Your task to perform on an android device: toggle show notifications on the lock screen Image 0: 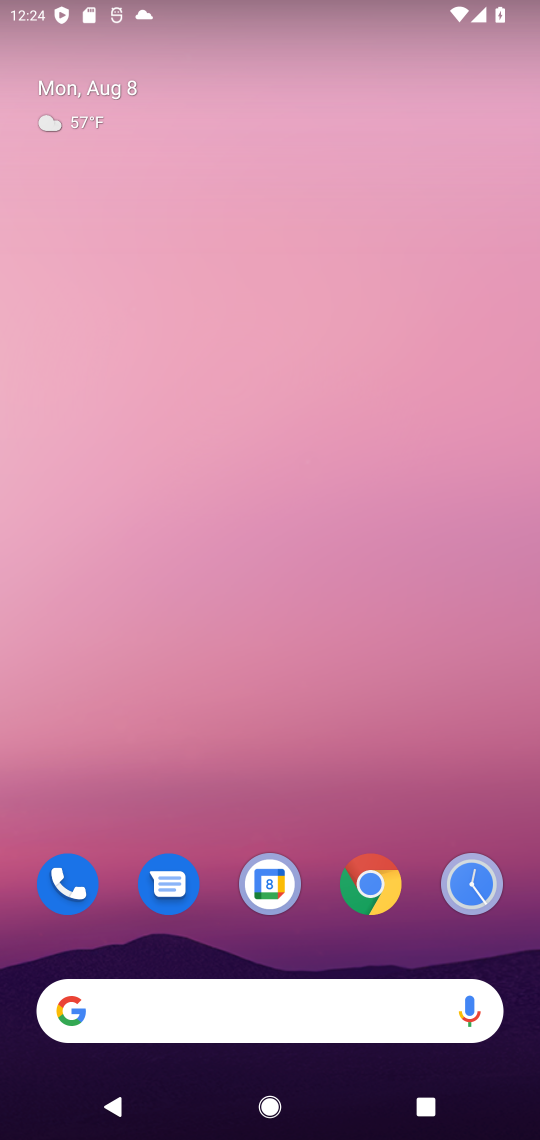
Step 0: drag from (87, 1041) to (356, 295)
Your task to perform on an android device: toggle show notifications on the lock screen Image 1: 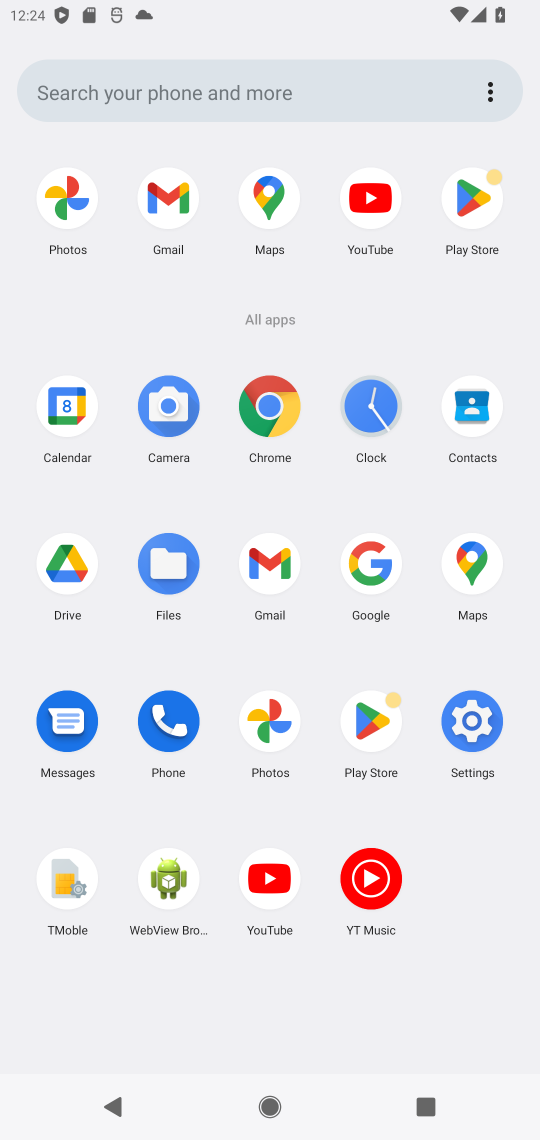
Step 1: click (468, 701)
Your task to perform on an android device: toggle show notifications on the lock screen Image 2: 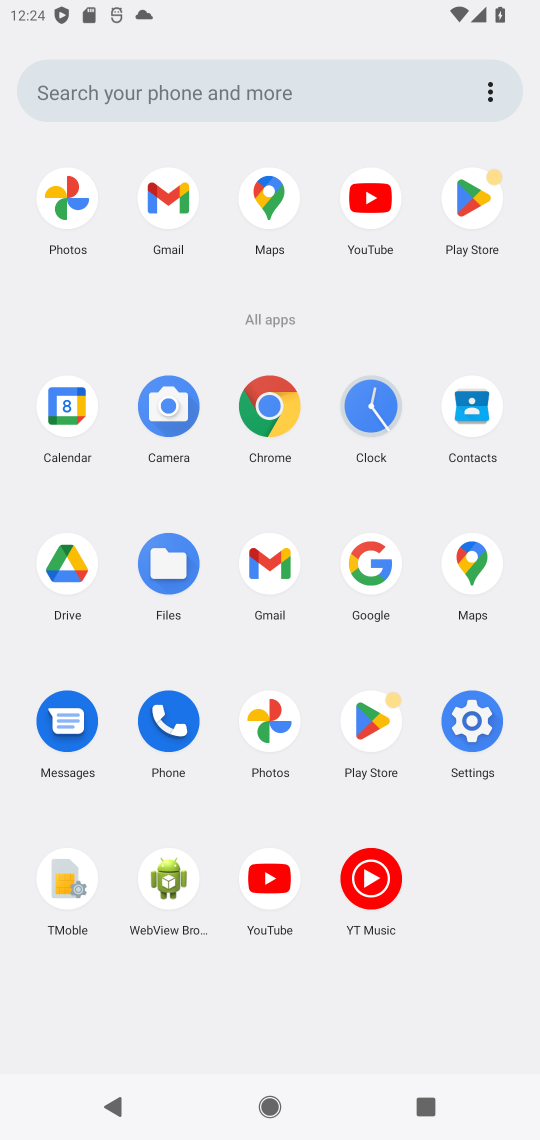
Step 2: click (468, 701)
Your task to perform on an android device: toggle show notifications on the lock screen Image 3: 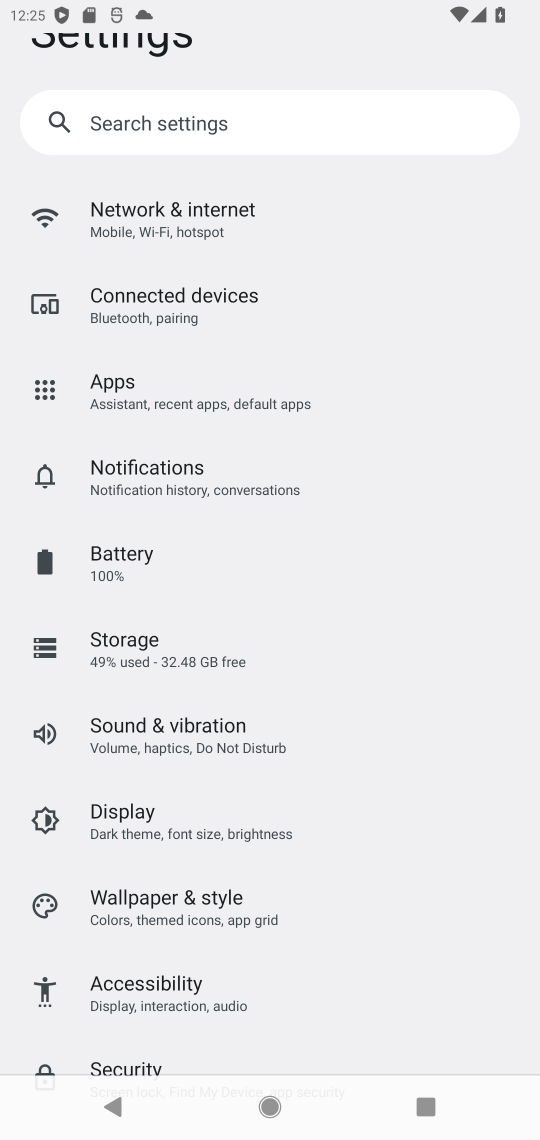
Step 3: click (228, 480)
Your task to perform on an android device: toggle show notifications on the lock screen Image 4: 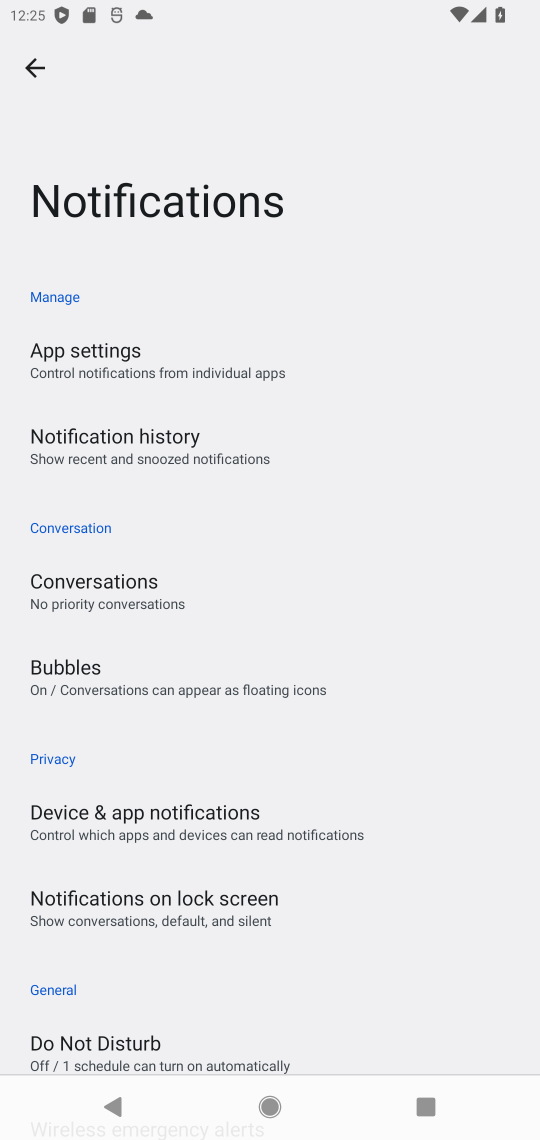
Step 4: click (302, 905)
Your task to perform on an android device: toggle show notifications on the lock screen Image 5: 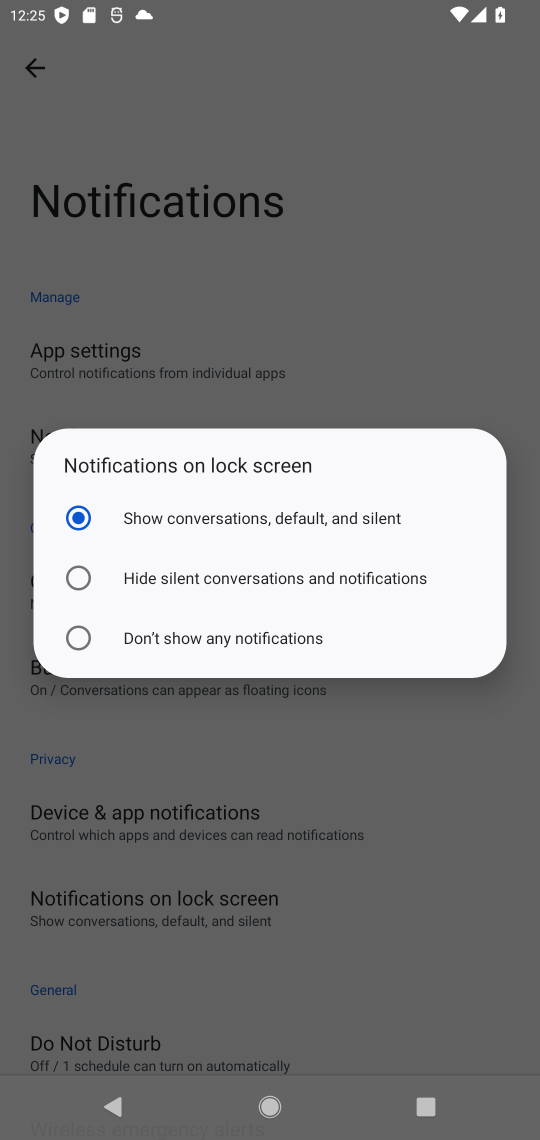
Step 5: click (219, 639)
Your task to perform on an android device: toggle show notifications on the lock screen Image 6: 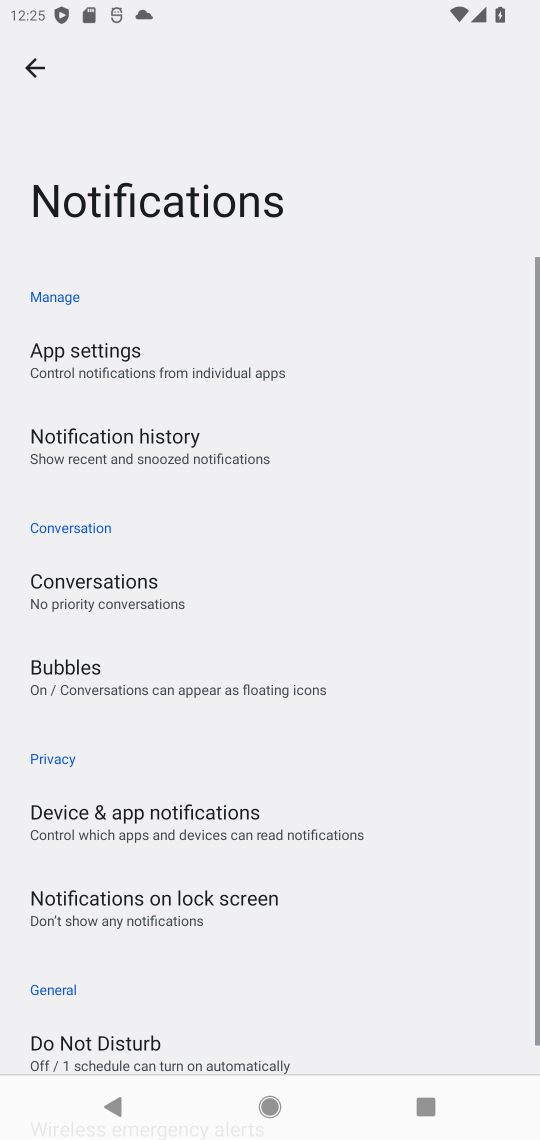
Step 6: task complete